Your task to perform on an android device: Go to privacy settings Image 0: 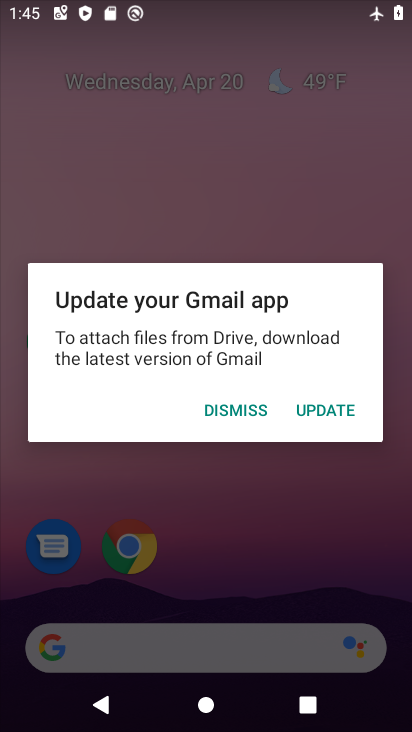
Step 0: press home button
Your task to perform on an android device: Go to privacy settings Image 1: 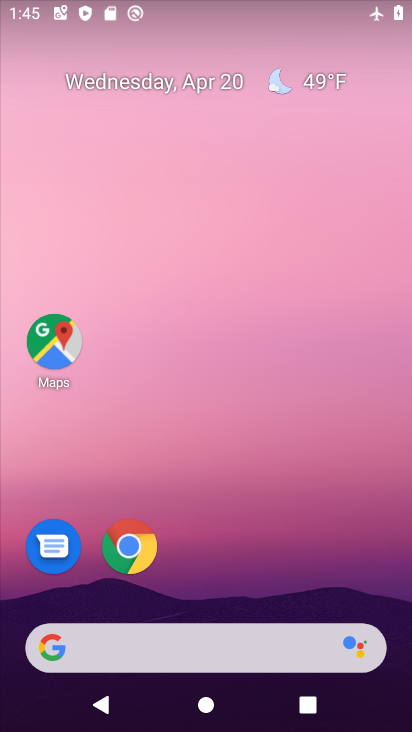
Step 1: drag from (261, 511) to (295, 266)
Your task to perform on an android device: Go to privacy settings Image 2: 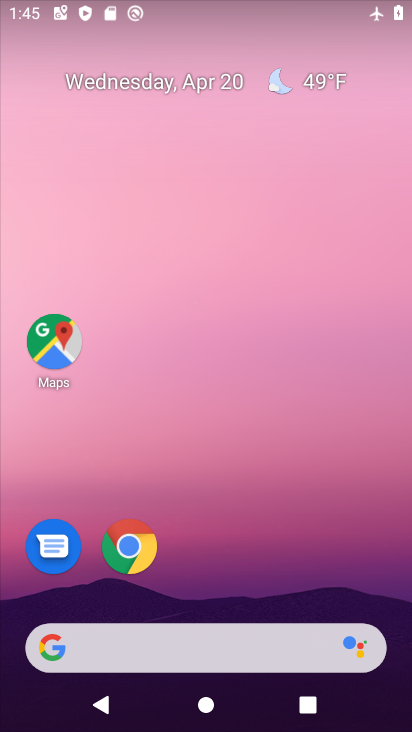
Step 2: drag from (253, 544) to (295, 310)
Your task to perform on an android device: Go to privacy settings Image 3: 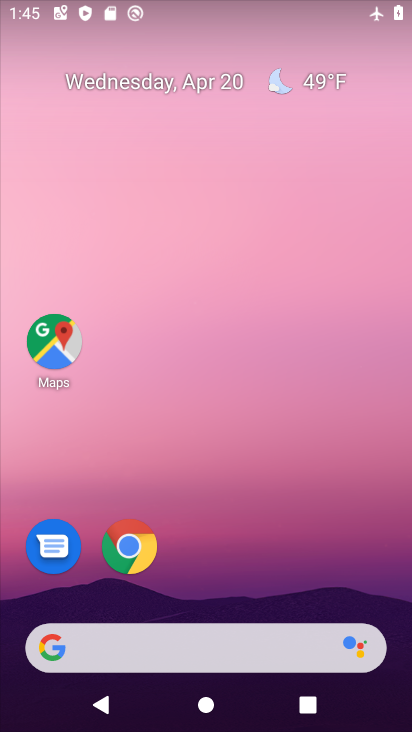
Step 3: drag from (229, 596) to (218, 225)
Your task to perform on an android device: Go to privacy settings Image 4: 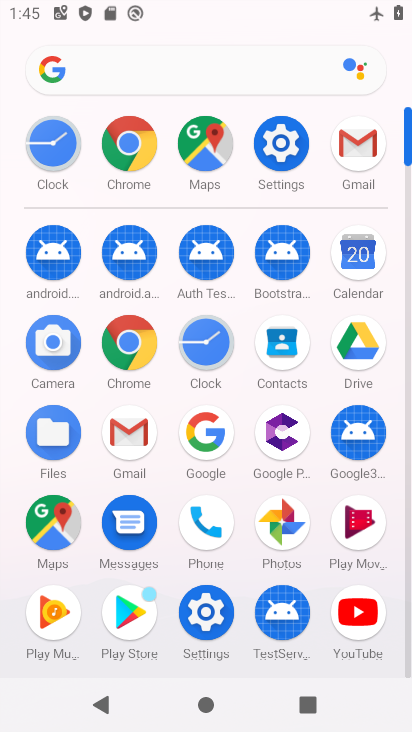
Step 4: click (124, 343)
Your task to perform on an android device: Go to privacy settings Image 5: 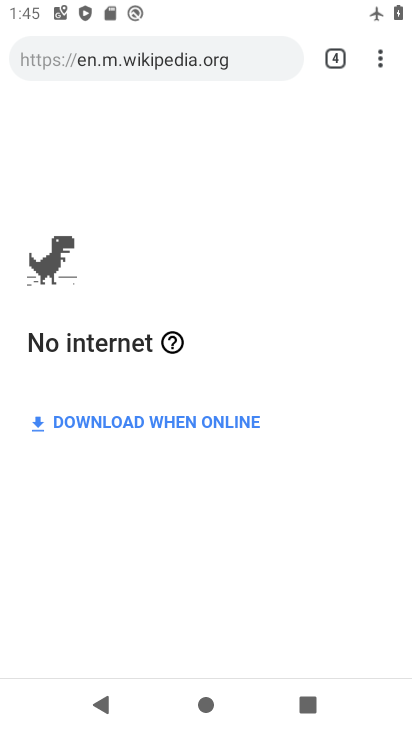
Step 5: click (381, 59)
Your task to perform on an android device: Go to privacy settings Image 6: 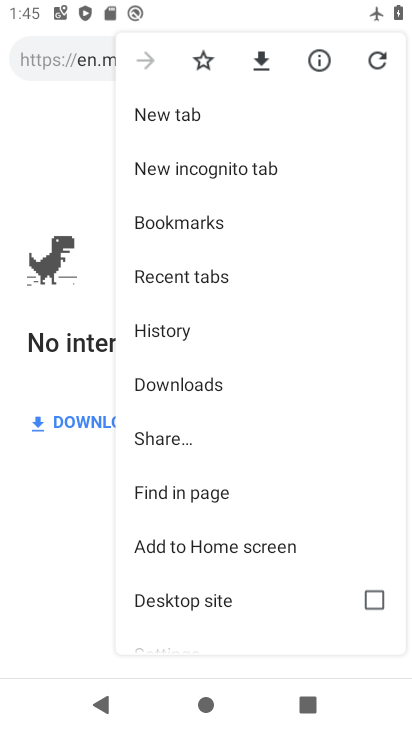
Step 6: drag from (229, 577) to (296, 263)
Your task to perform on an android device: Go to privacy settings Image 7: 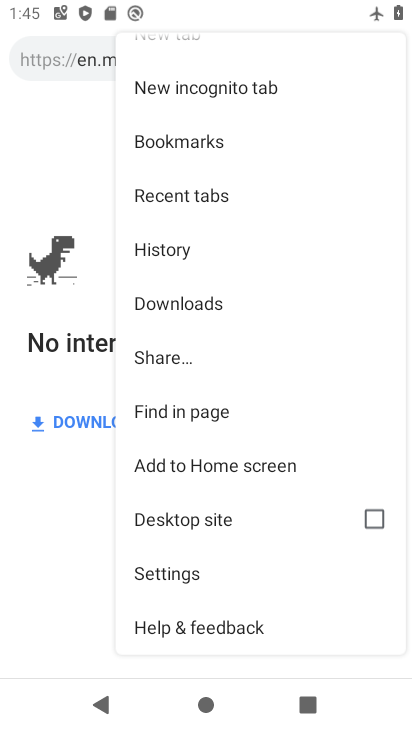
Step 7: click (201, 569)
Your task to perform on an android device: Go to privacy settings Image 8: 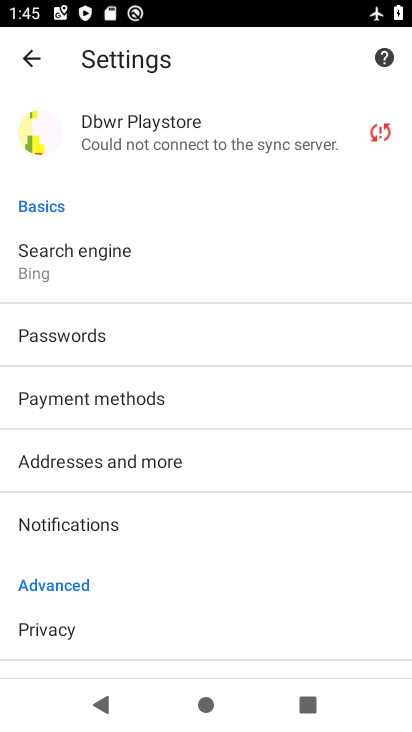
Step 8: drag from (228, 602) to (277, 353)
Your task to perform on an android device: Go to privacy settings Image 9: 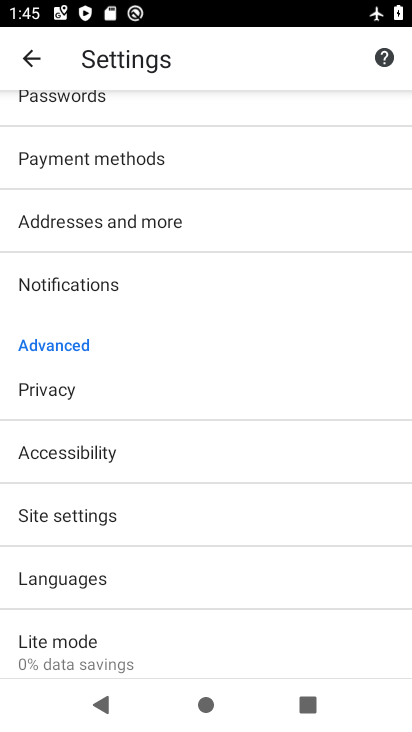
Step 9: click (83, 384)
Your task to perform on an android device: Go to privacy settings Image 10: 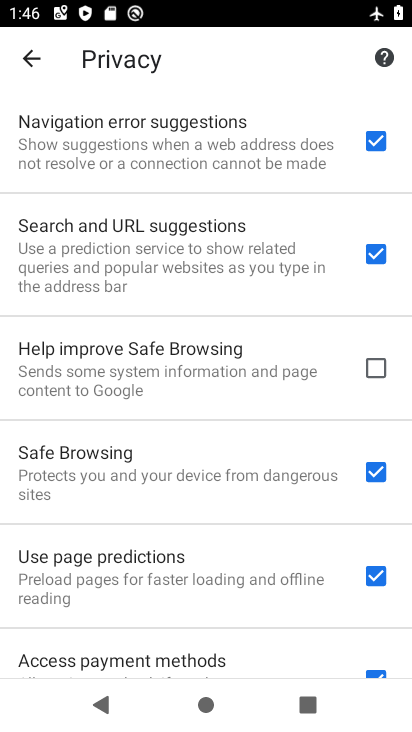
Step 10: task complete